Your task to perform on an android device: turn off priority inbox in the gmail app Image 0: 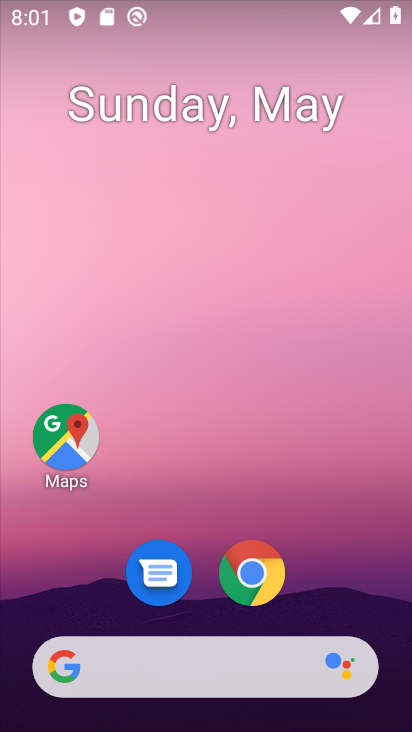
Step 0: drag from (397, 580) to (275, 38)
Your task to perform on an android device: turn off priority inbox in the gmail app Image 1: 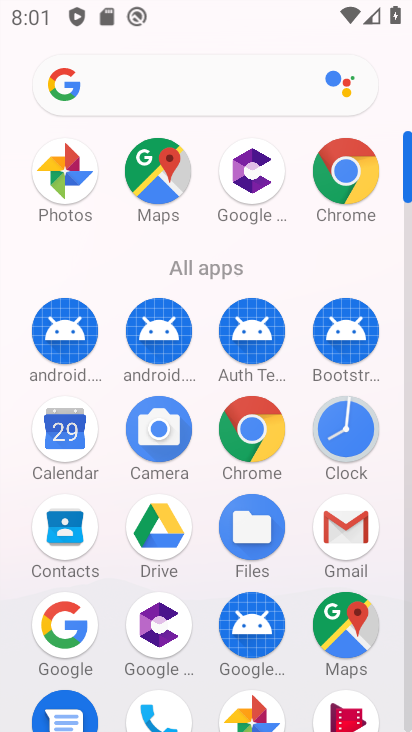
Step 1: click (356, 533)
Your task to perform on an android device: turn off priority inbox in the gmail app Image 2: 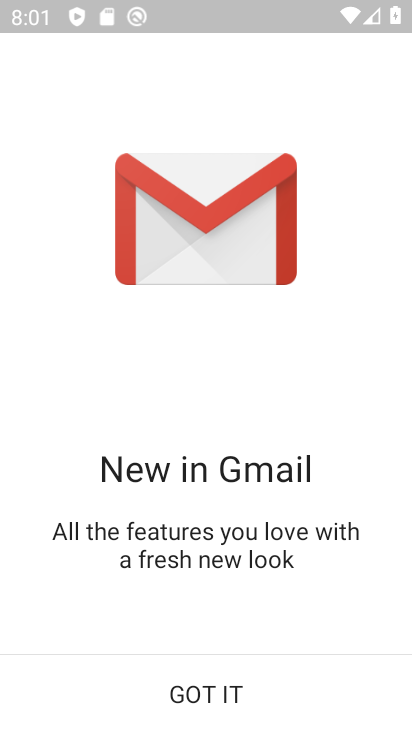
Step 2: click (212, 698)
Your task to perform on an android device: turn off priority inbox in the gmail app Image 3: 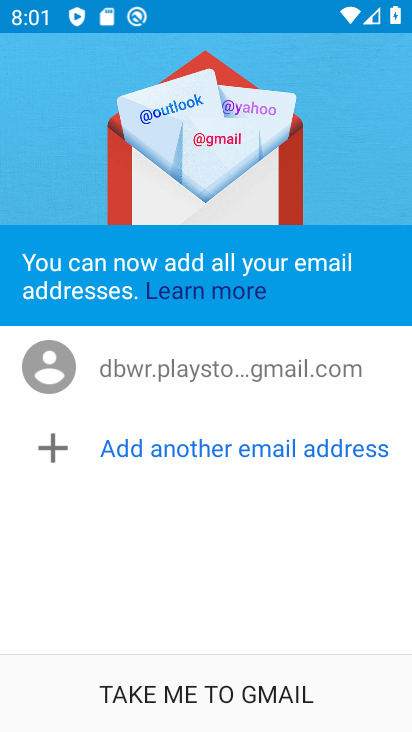
Step 3: click (212, 698)
Your task to perform on an android device: turn off priority inbox in the gmail app Image 4: 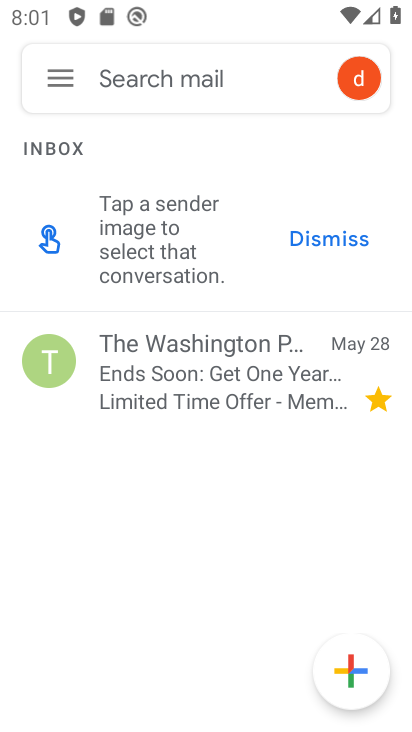
Step 4: click (62, 71)
Your task to perform on an android device: turn off priority inbox in the gmail app Image 5: 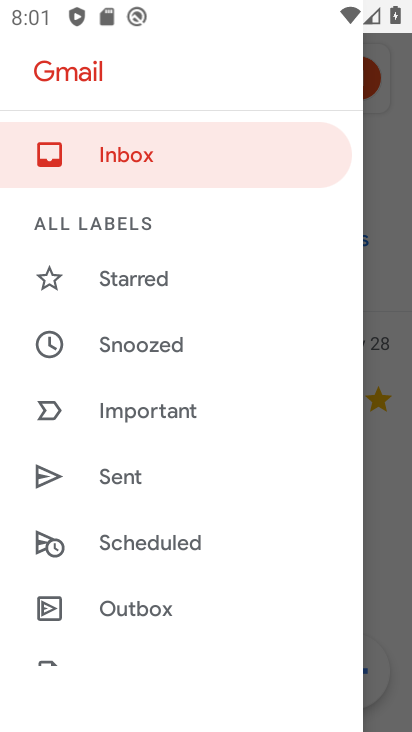
Step 5: drag from (194, 649) to (173, 349)
Your task to perform on an android device: turn off priority inbox in the gmail app Image 6: 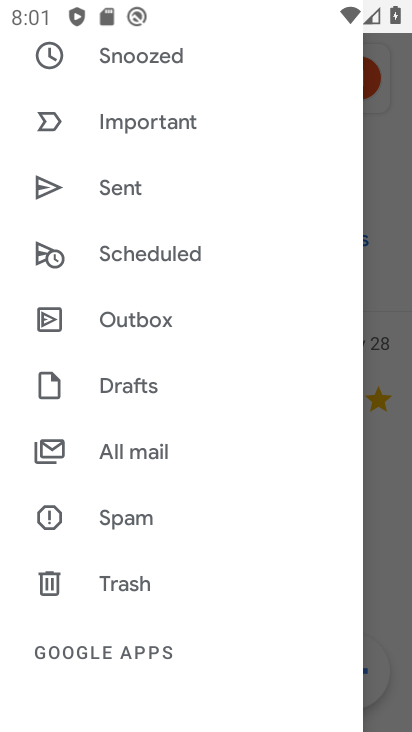
Step 6: drag from (163, 612) to (170, 287)
Your task to perform on an android device: turn off priority inbox in the gmail app Image 7: 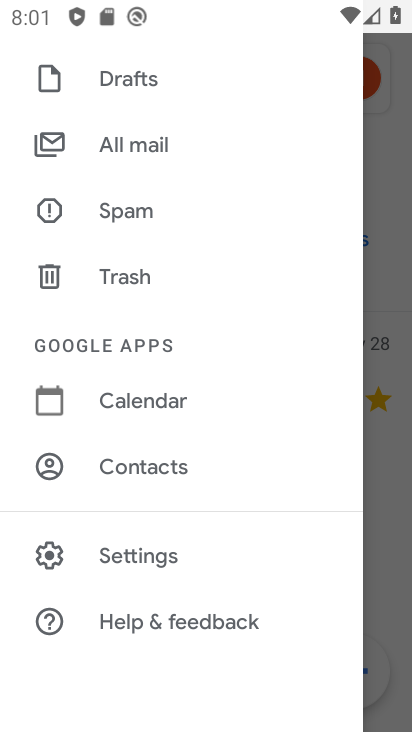
Step 7: click (150, 550)
Your task to perform on an android device: turn off priority inbox in the gmail app Image 8: 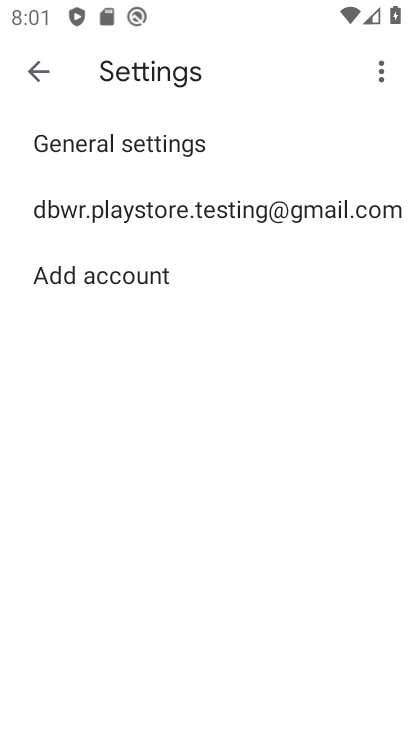
Step 8: click (226, 205)
Your task to perform on an android device: turn off priority inbox in the gmail app Image 9: 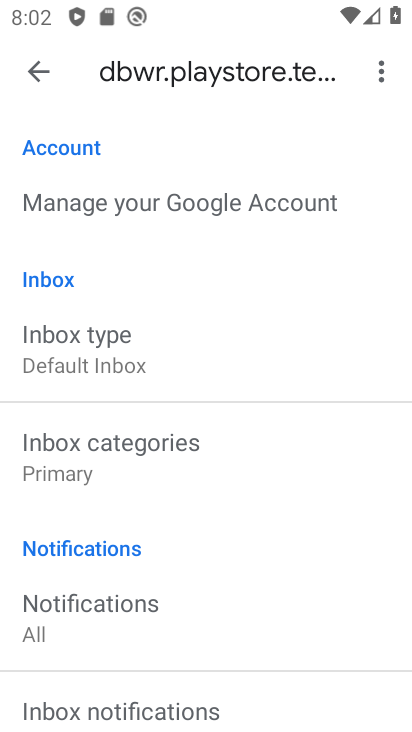
Step 9: click (181, 380)
Your task to perform on an android device: turn off priority inbox in the gmail app Image 10: 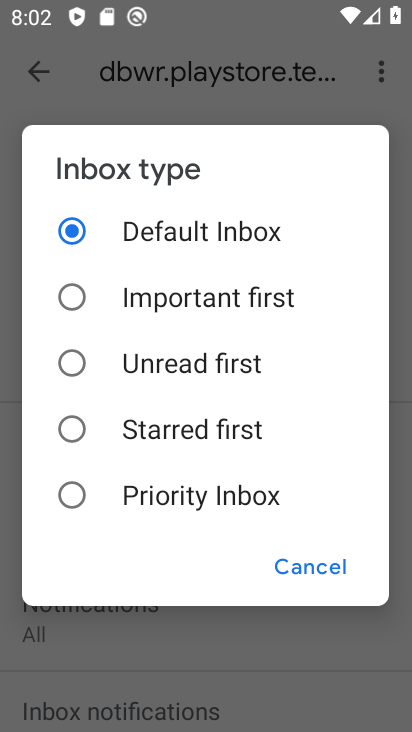
Step 10: task complete